Your task to perform on an android device: Open Chrome and go to settings Image 0: 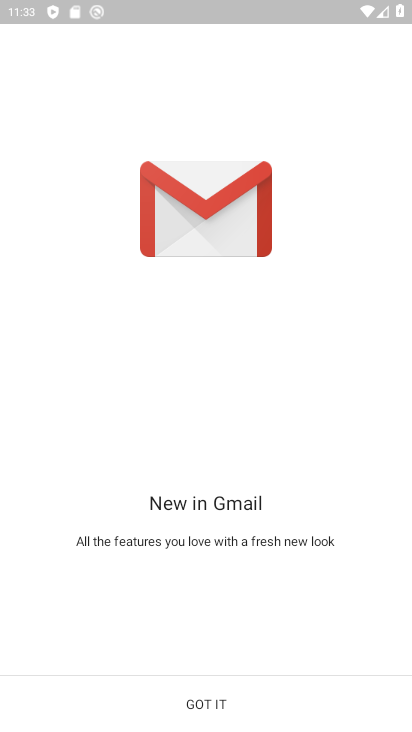
Step 0: press home button
Your task to perform on an android device: Open Chrome and go to settings Image 1: 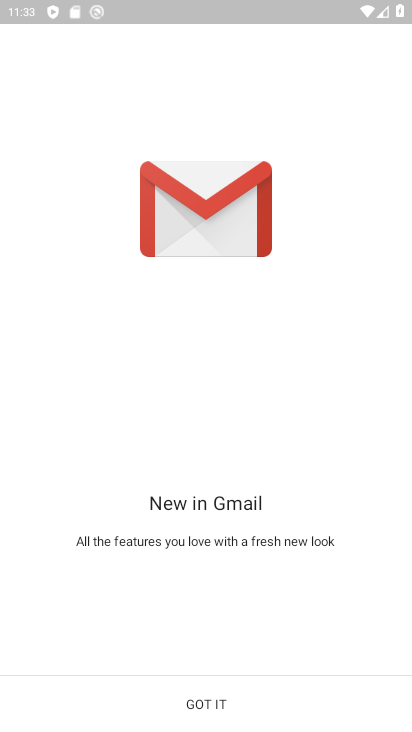
Step 1: press home button
Your task to perform on an android device: Open Chrome and go to settings Image 2: 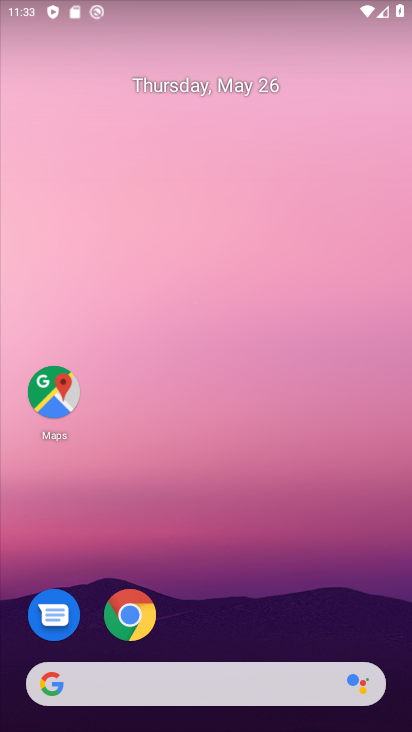
Step 2: click (132, 622)
Your task to perform on an android device: Open Chrome and go to settings Image 3: 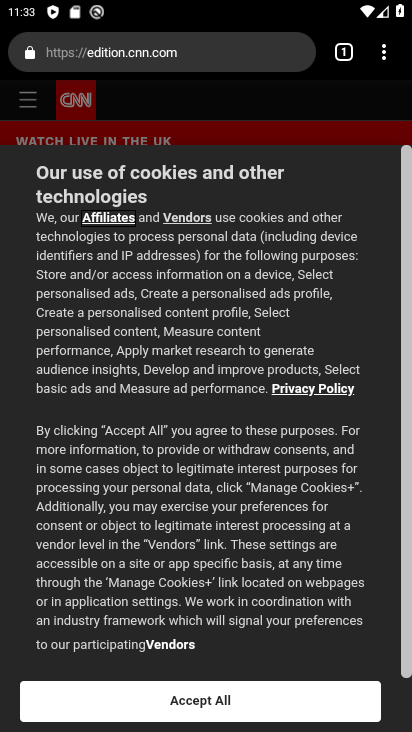
Step 3: click (389, 66)
Your task to perform on an android device: Open Chrome and go to settings Image 4: 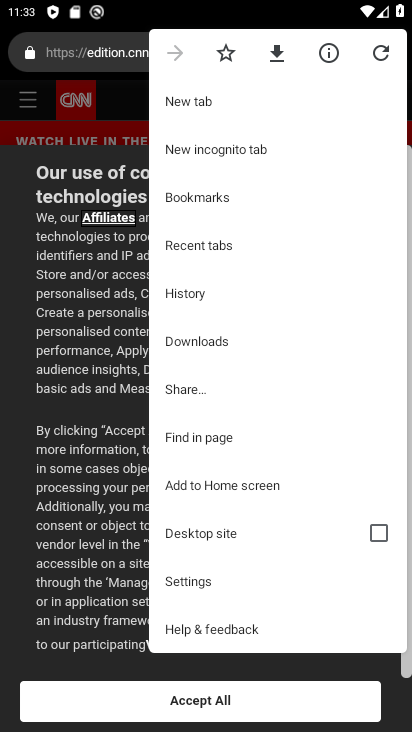
Step 4: click (218, 581)
Your task to perform on an android device: Open Chrome and go to settings Image 5: 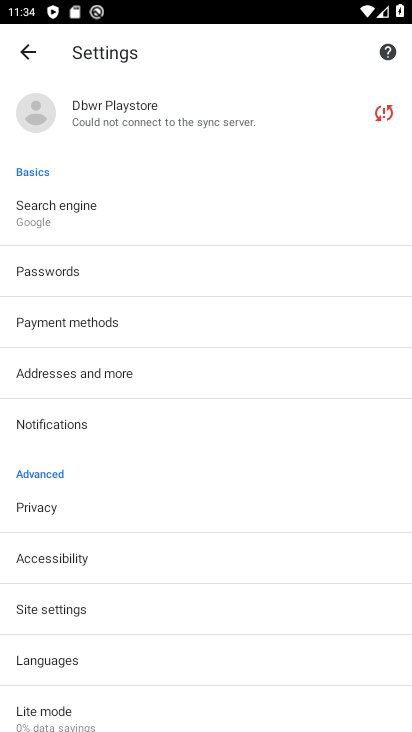
Step 5: task complete